Your task to perform on an android device: Do I have any events this weekend? Image 0: 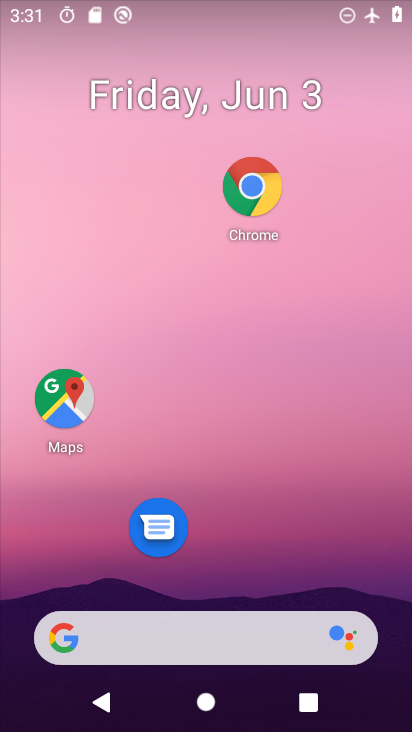
Step 0: drag from (304, 554) to (319, 233)
Your task to perform on an android device: Do I have any events this weekend? Image 1: 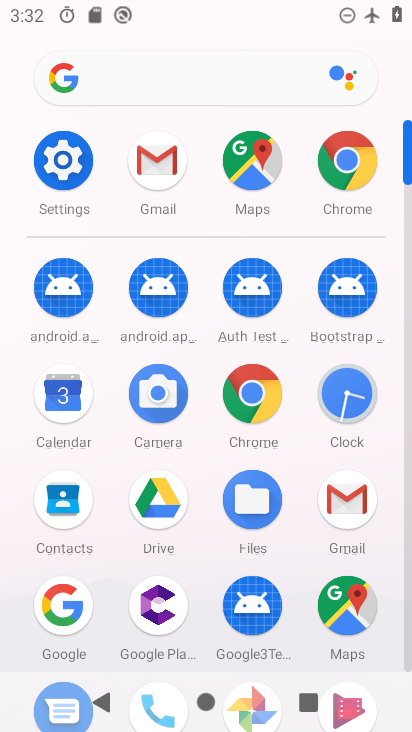
Step 1: click (59, 388)
Your task to perform on an android device: Do I have any events this weekend? Image 2: 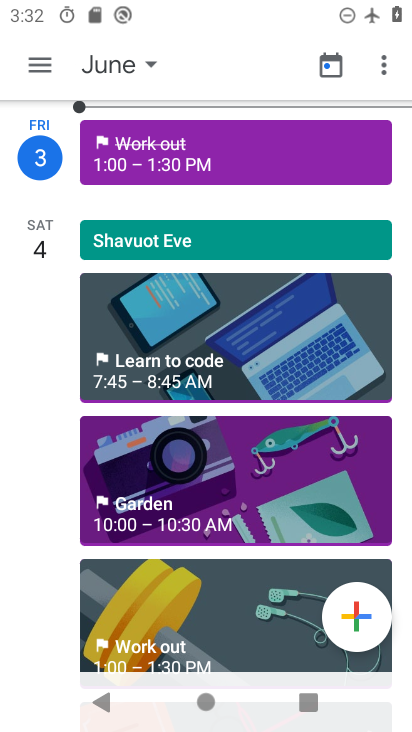
Step 2: task complete